Your task to perform on an android device: Open internet settings Image 0: 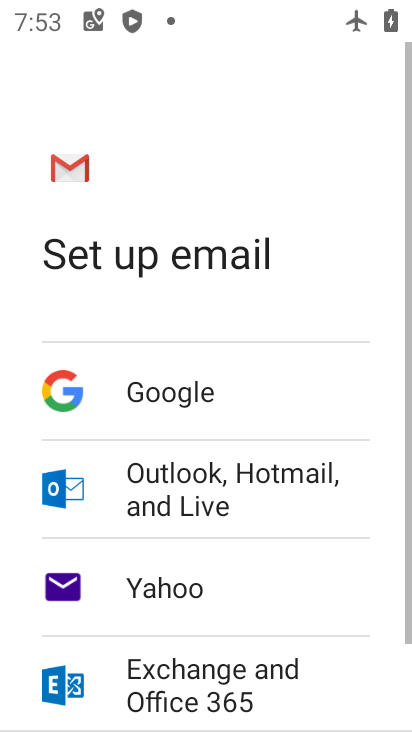
Step 0: press home button
Your task to perform on an android device: Open internet settings Image 1: 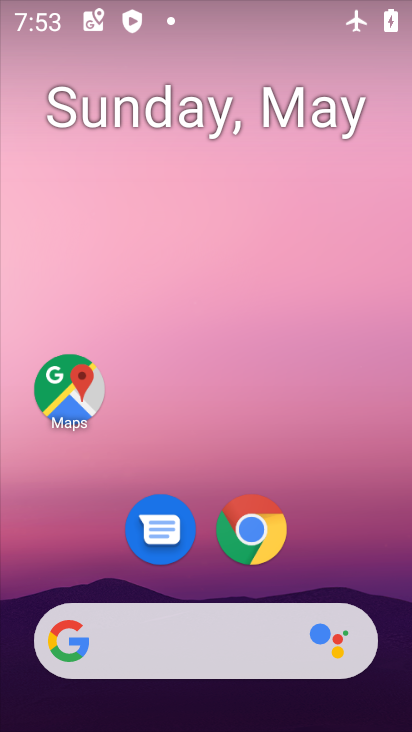
Step 1: drag from (372, 614) to (342, 16)
Your task to perform on an android device: Open internet settings Image 2: 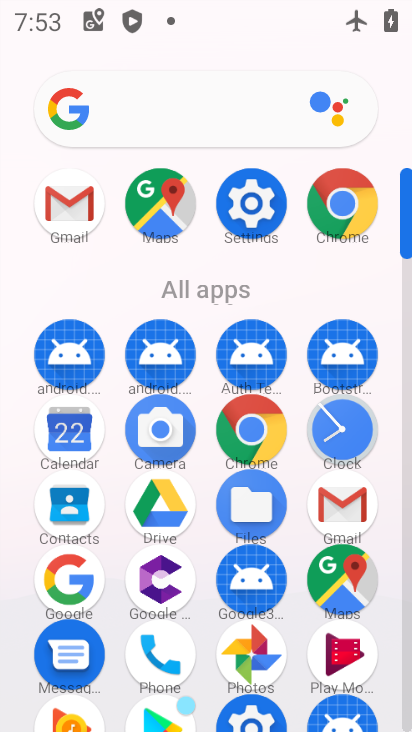
Step 2: click (247, 207)
Your task to perform on an android device: Open internet settings Image 3: 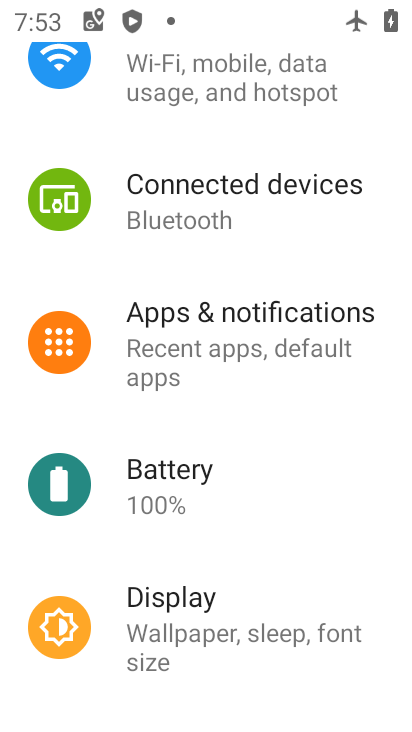
Step 3: drag from (383, 139) to (391, 729)
Your task to perform on an android device: Open internet settings Image 4: 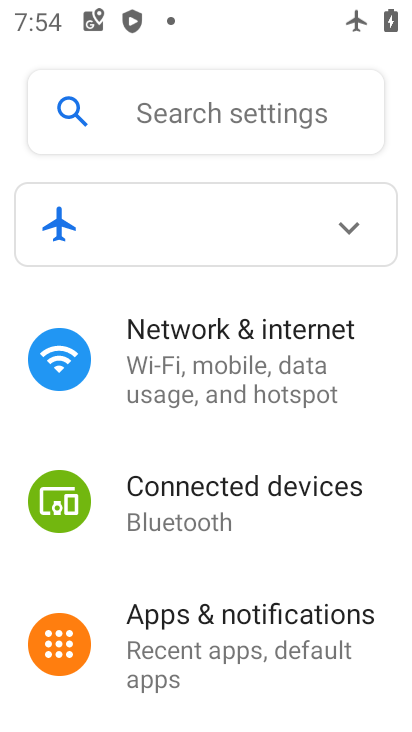
Step 4: click (205, 378)
Your task to perform on an android device: Open internet settings Image 5: 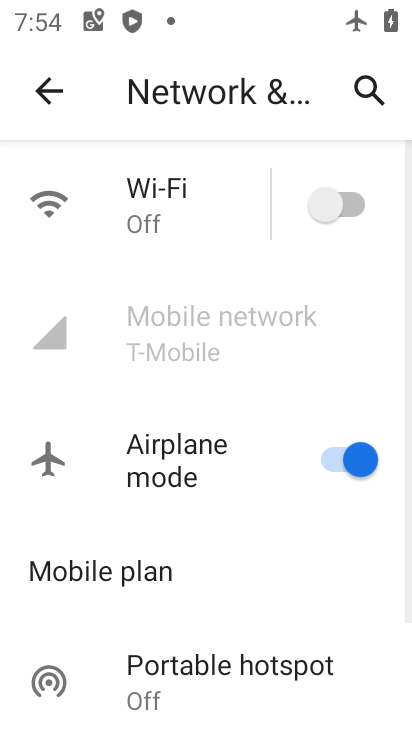
Step 5: task complete